Your task to perform on an android device: turn off picture-in-picture Image 0: 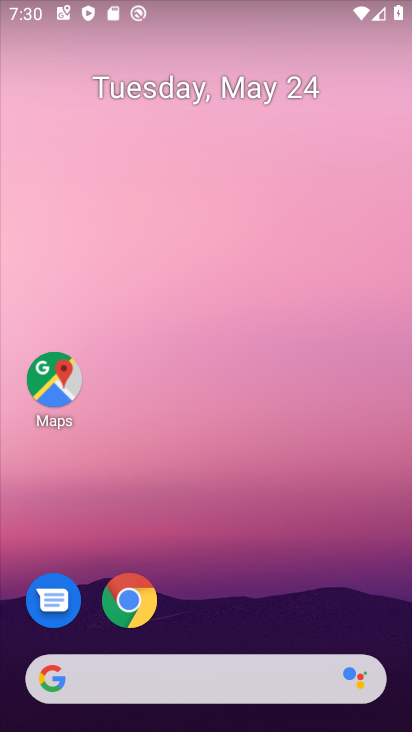
Step 0: drag from (244, 549) to (260, 72)
Your task to perform on an android device: turn off picture-in-picture Image 1: 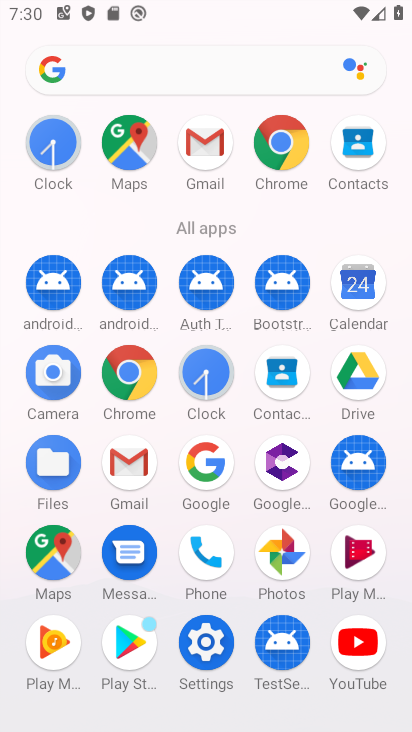
Step 1: click (201, 660)
Your task to perform on an android device: turn off picture-in-picture Image 2: 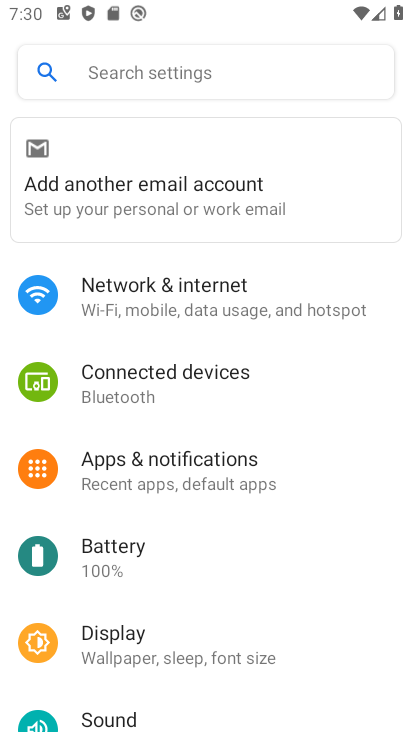
Step 2: click (140, 474)
Your task to perform on an android device: turn off picture-in-picture Image 3: 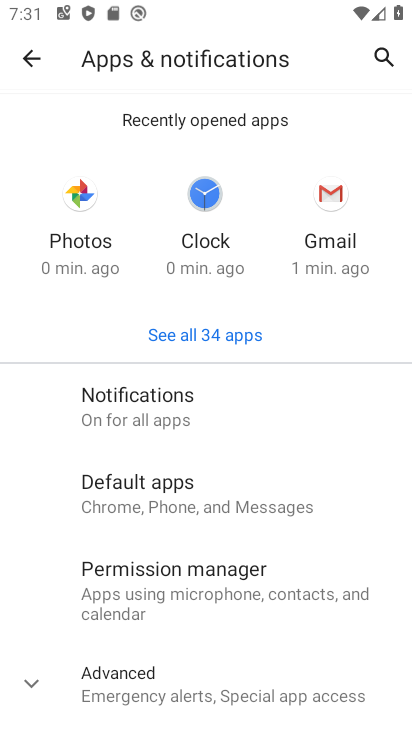
Step 3: drag from (231, 603) to (345, 27)
Your task to perform on an android device: turn off picture-in-picture Image 4: 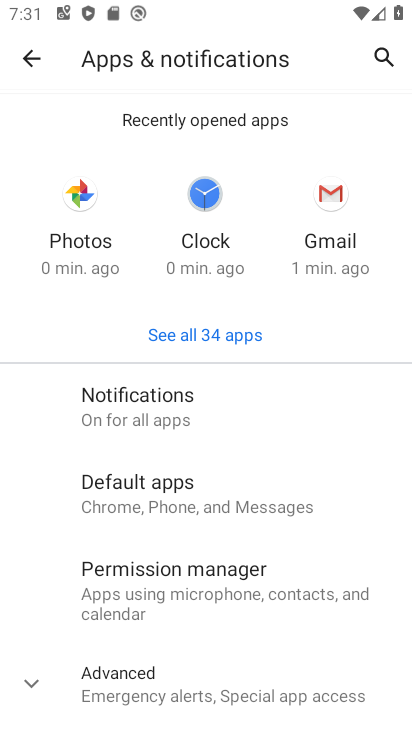
Step 4: click (169, 683)
Your task to perform on an android device: turn off picture-in-picture Image 5: 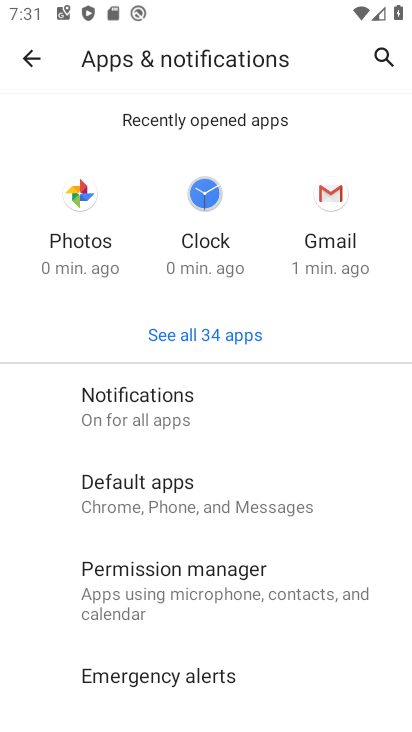
Step 5: drag from (176, 659) to (204, 692)
Your task to perform on an android device: turn off picture-in-picture Image 6: 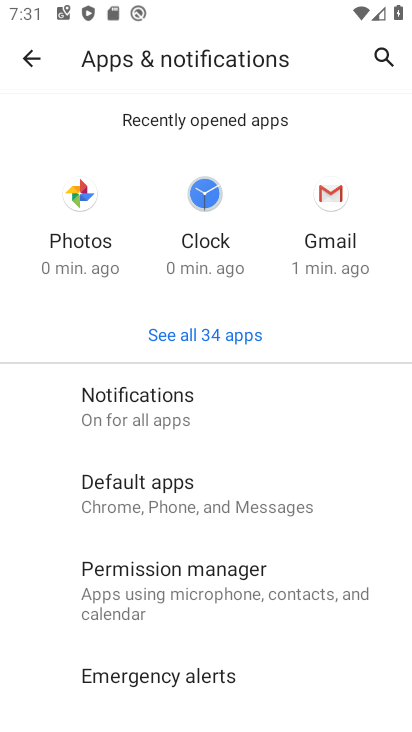
Step 6: drag from (198, 660) to (308, 155)
Your task to perform on an android device: turn off picture-in-picture Image 7: 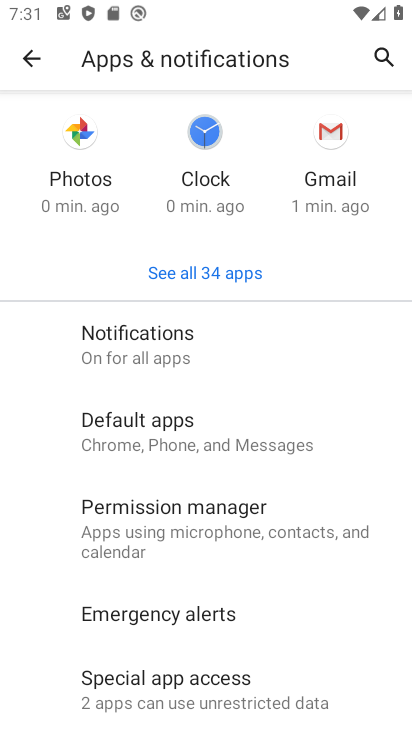
Step 7: click (135, 697)
Your task to perform on an android device: turn off picture-in-picture Image 8: 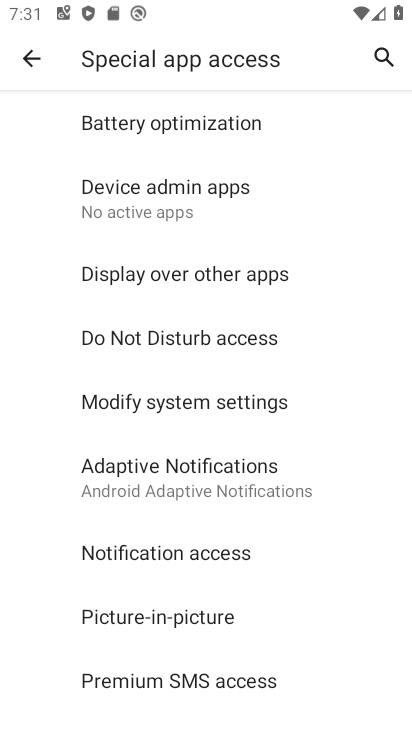
Step 8: click (117, 613)
Your task to perform on an android device: turn off picture-in-picture Image 9: 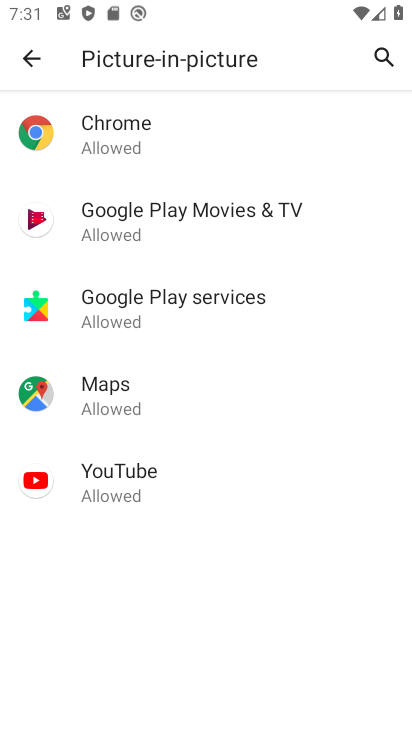
Step 9: click (145, 133)
Your task to perform on an android device: turn off picture-in-picture Image 10: 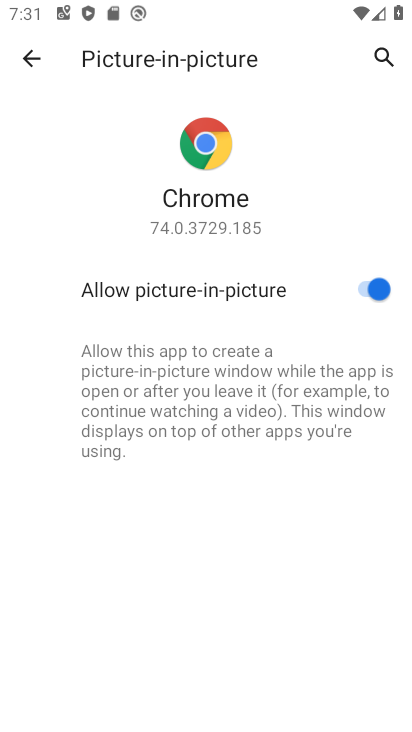
Step 10: click (368, 290)
Your task to perform on an android device: turn off picture-in-picture Image 11: 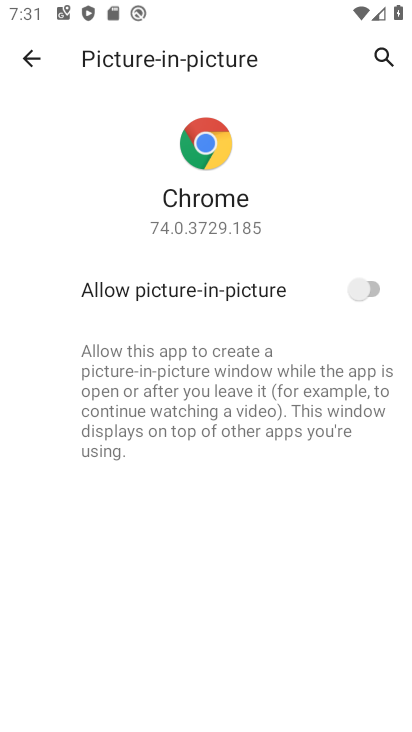
Step 11: task complete